Your task to perform on an android device: set default search engine in the chrome app Image 0: 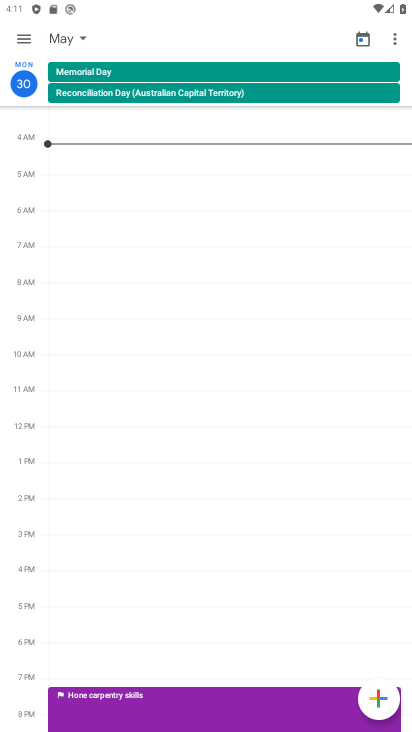
Step 0: press home button
Your task to perform on an android device: set default search engine in the chrome app Image 1: 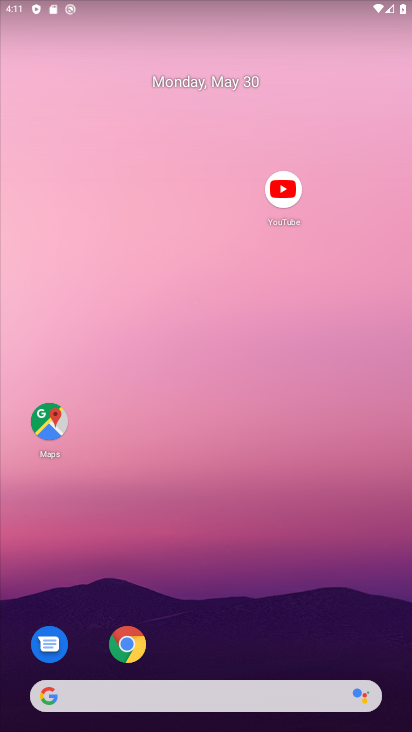
Step 1: click (131, 639)
Your task to perform on an android device: set default search engine in the chrome app Image 2: 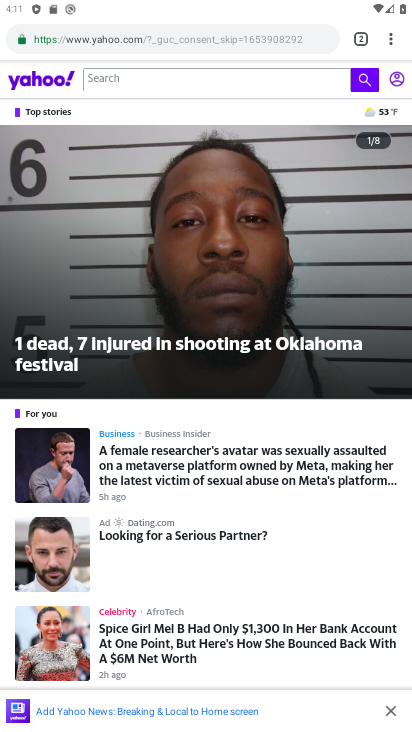
Step 2: click (396, 32)
Your task to perform on an android device: set default search engine in the chrome app Image 3: 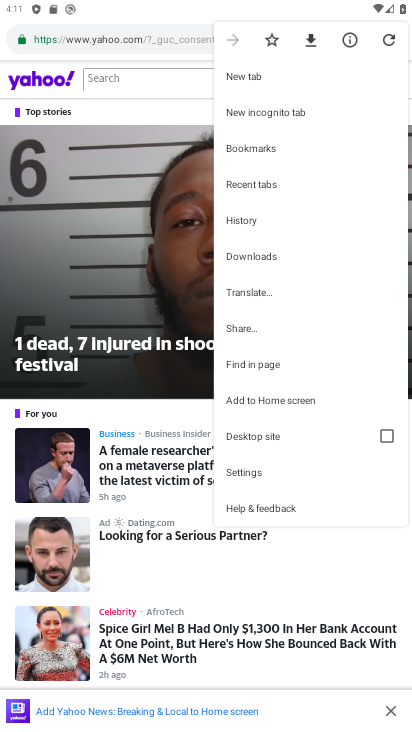
Step 3: click (264, 477)
Your task to perform on an android device: set default search engine in the chrome app Image 4: 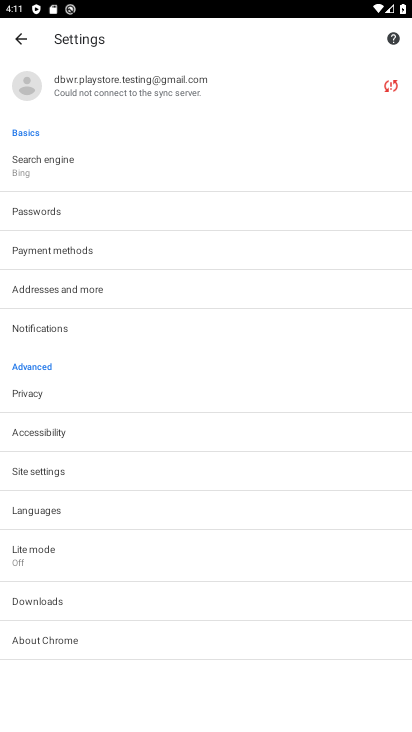
Step 4: click (72, 166)
Your task to perform on an android device: set default search engine in the chrome app Image 5: 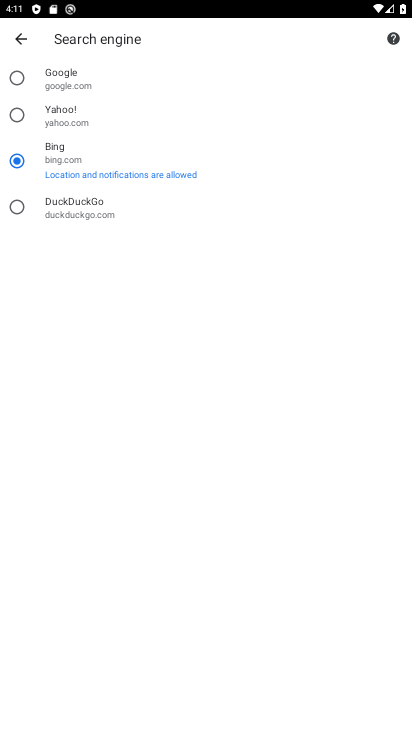
Step 5: click (76, 125)
Your task to perform on an android device: set default search engine in the chrome app Image 6: 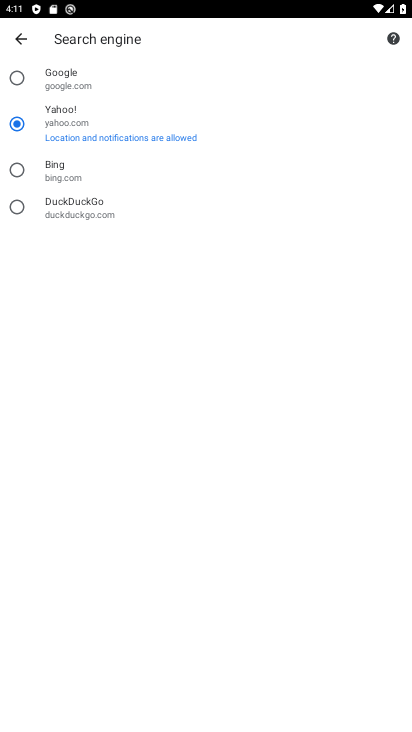
Step 6: task complete